Your task to perform on an android device: Go to Google maps Image 0: 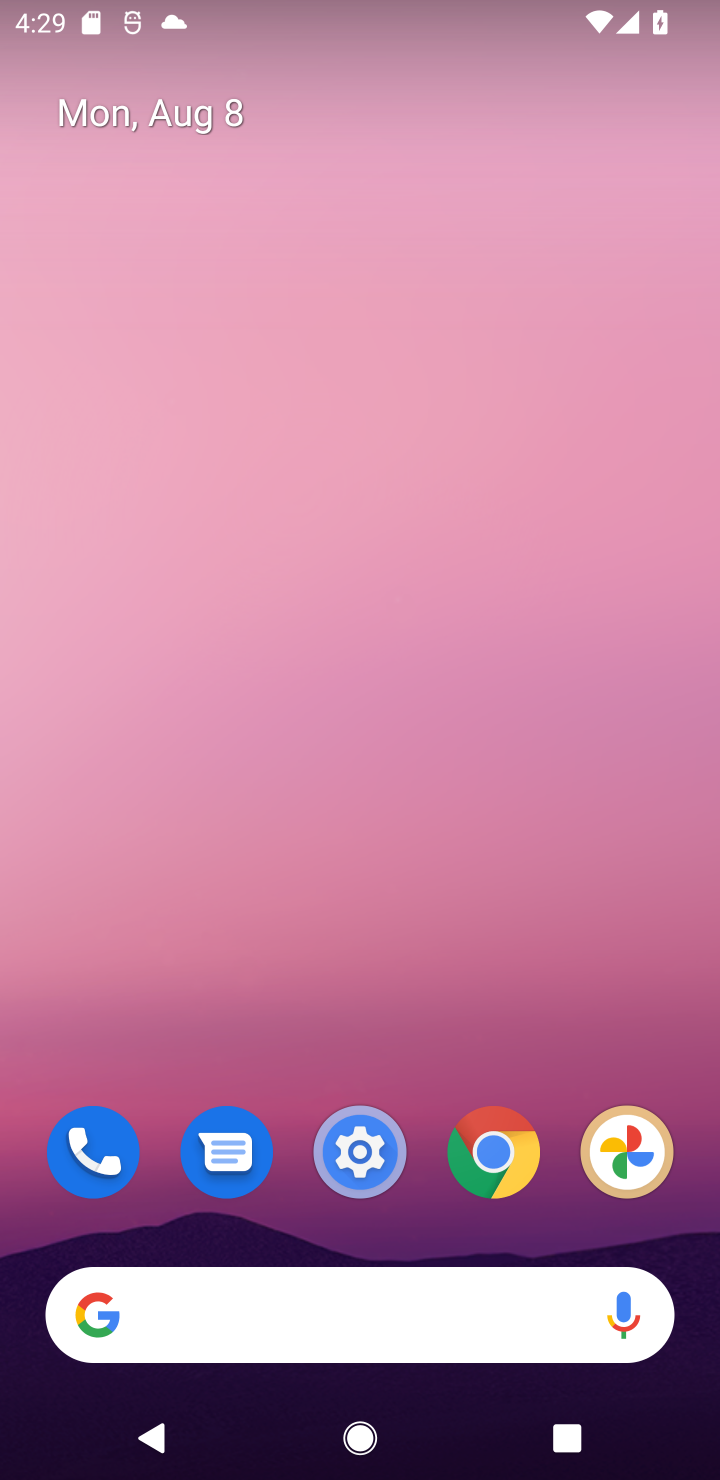
Step 0: drag from (273, 1075) to (382, 20)
Your task to perform on an android device: Go to Google maps Image 1: 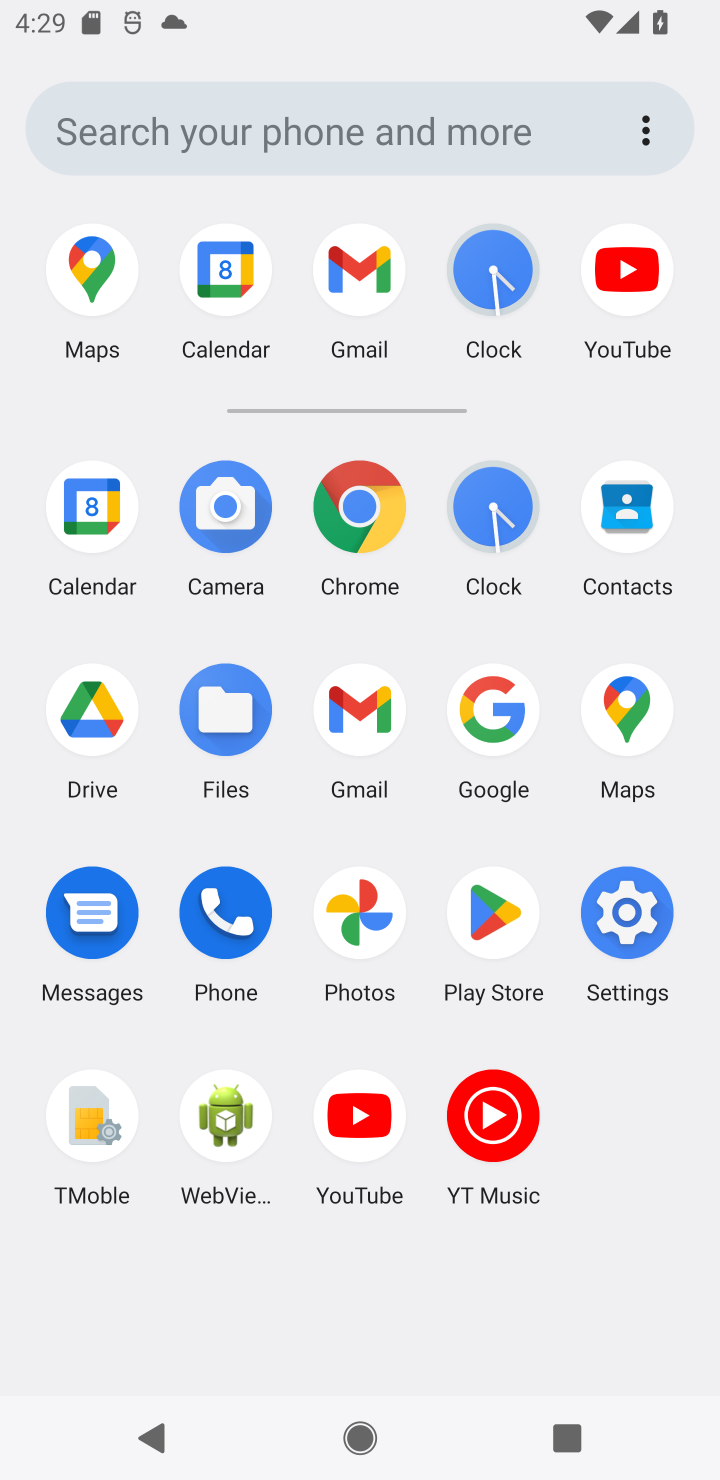
Step 1: click (634, 709)
Your task to perform on an android device: Go to Google maps Image 2: 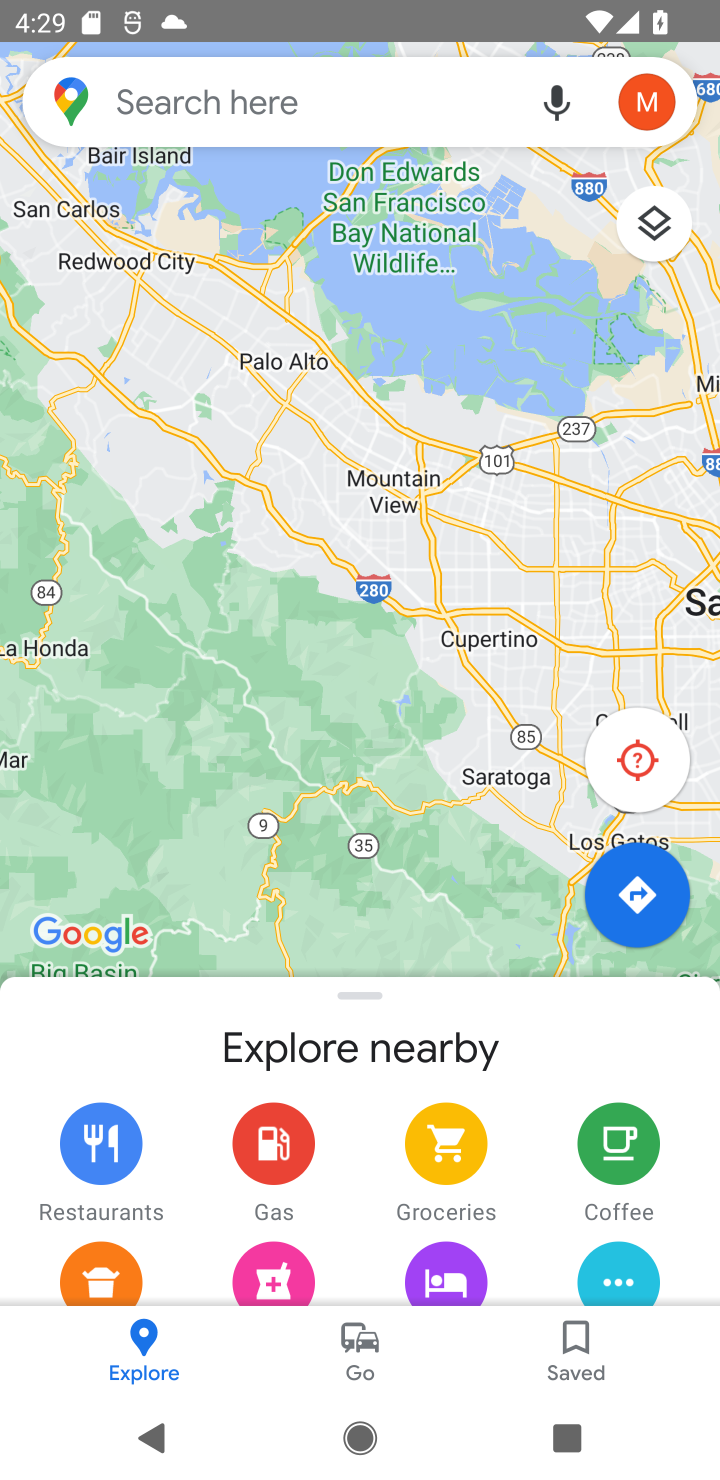
Step 2: task complete